Your task to perform on an android device: Show me recent news Image 0: 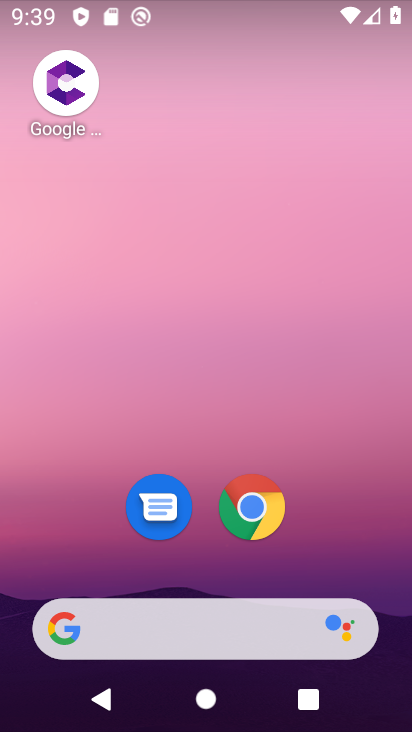
Step 0: drag from (390, 580) to (248, 8)
Your task to perform on an android device: Show me recent news Image 1: 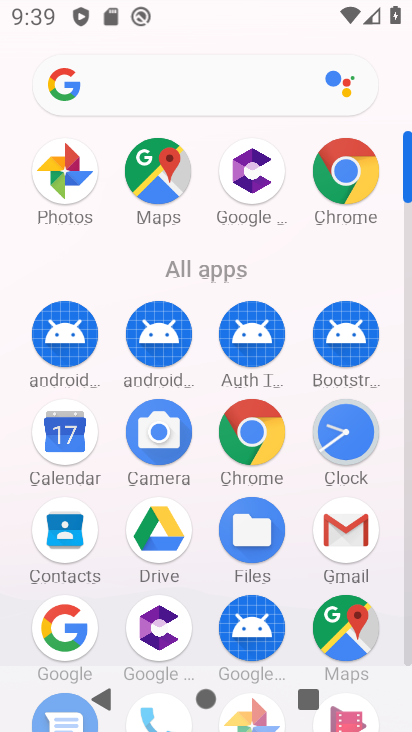
Step 1: click (409, 656)
Your task to perform on an android device: Show me recent news Image 2: 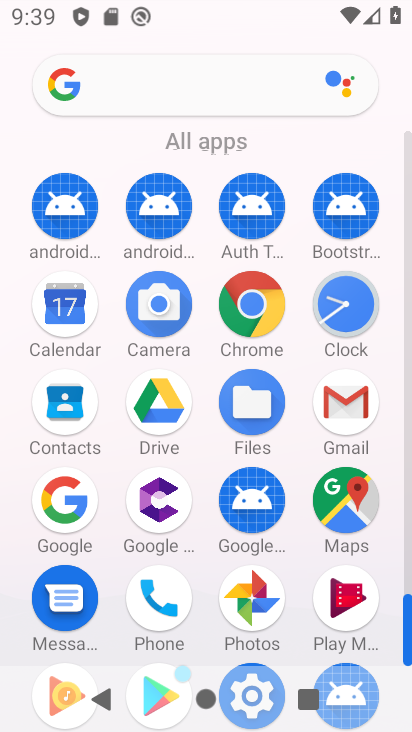
Step 2: click (267, 296)
Your task to perform on an android device: Show me recent news Image 3: 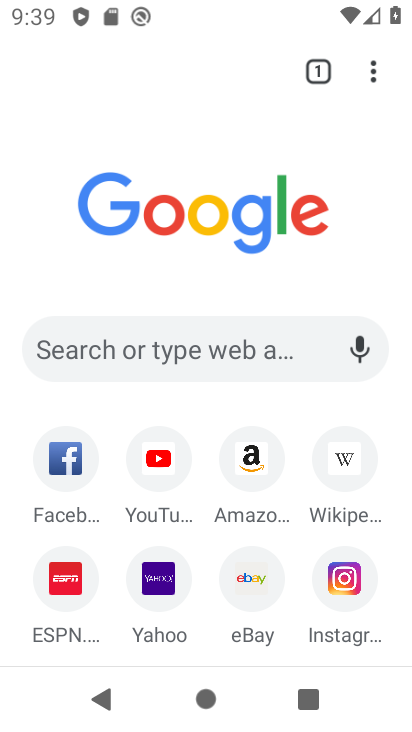
Step 3: click (216, 355)
Your task to perform on an android device: Show me recent news Image 4: 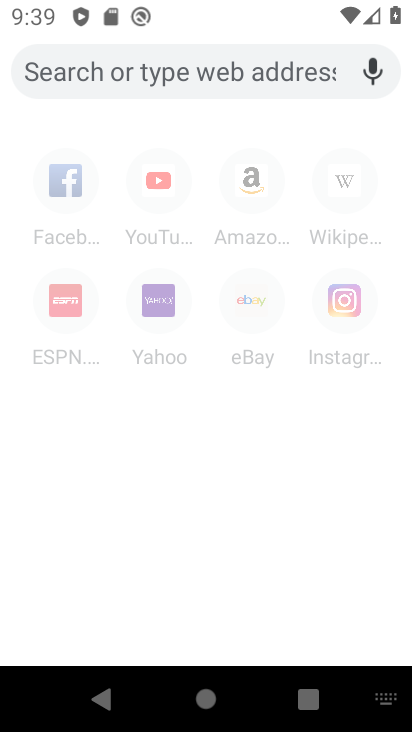
Step 4: type "recent news"
Your task to perform on an android device: Show me recent news Image 5: 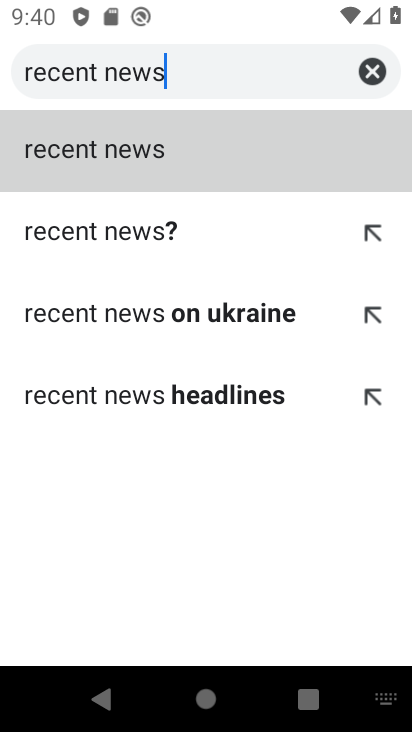
Step 5: click (145, 147)
Your task to perform on an android device: Show me recent news Image 6: 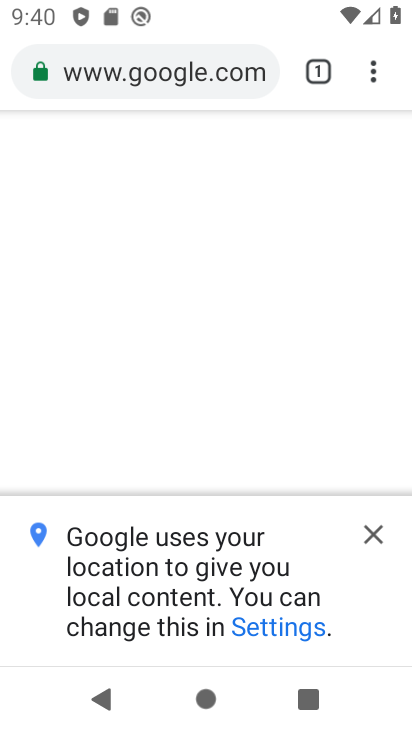
Step 6: click (383, 536)
Your task to perform on an android device: Show me recent news Image 7: 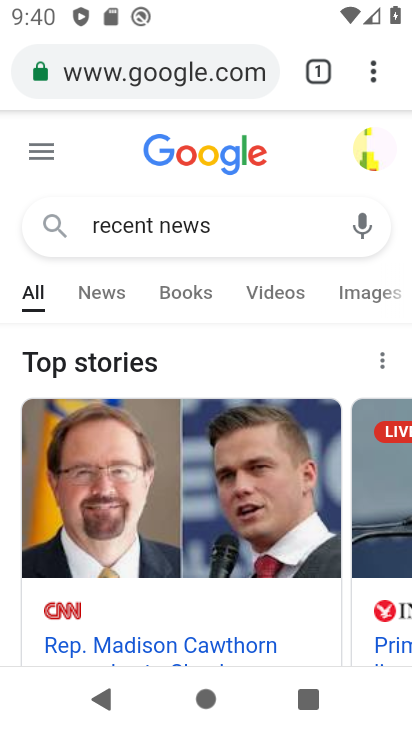
Step 7: task complete